Your task to perform on an android device: open a bookmark in the chrome app Image 0: 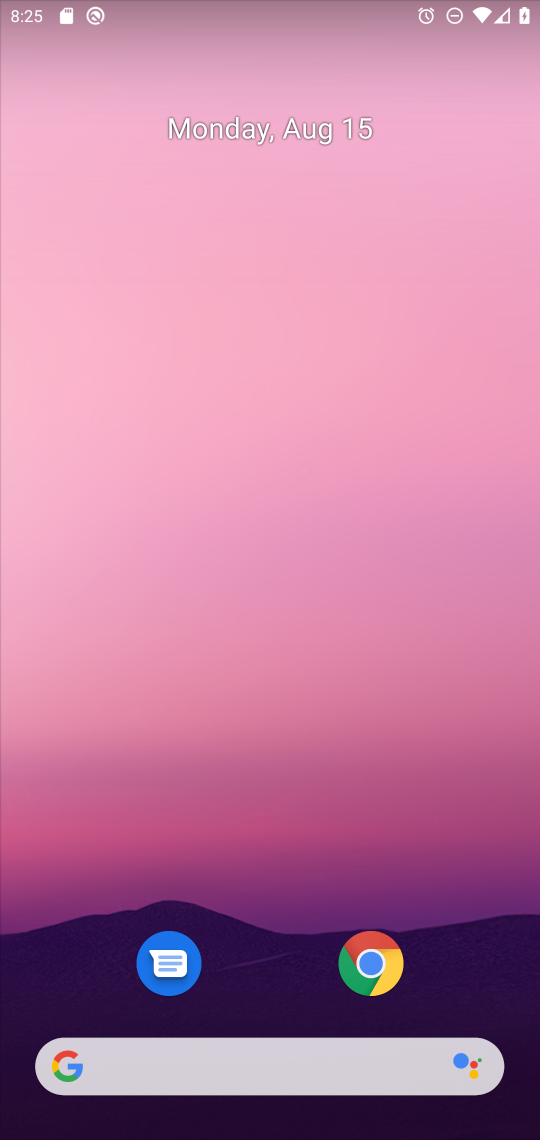
Step 0: click (381, 938)
Your task to perform on an android device: open a bookmark in the chrome app Image 1: 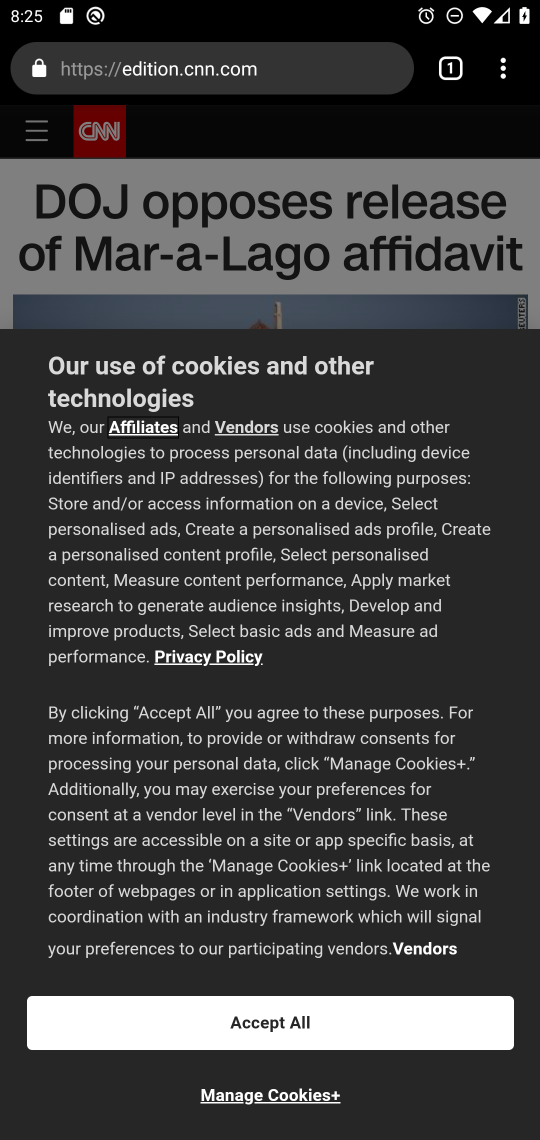
Step 1: click (524, 63)
Your task to perform on an android device: open a bookmark in the chrome app Image 2: 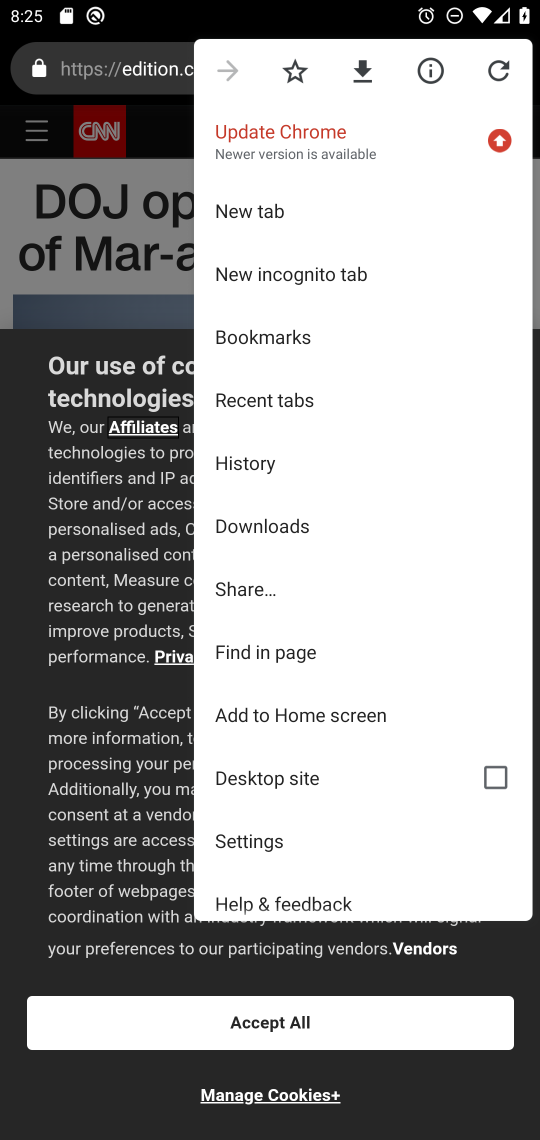
Step 2: click (293, 325)
Your task to perform on an android device: open a bookmark in the chrome app Image 3: 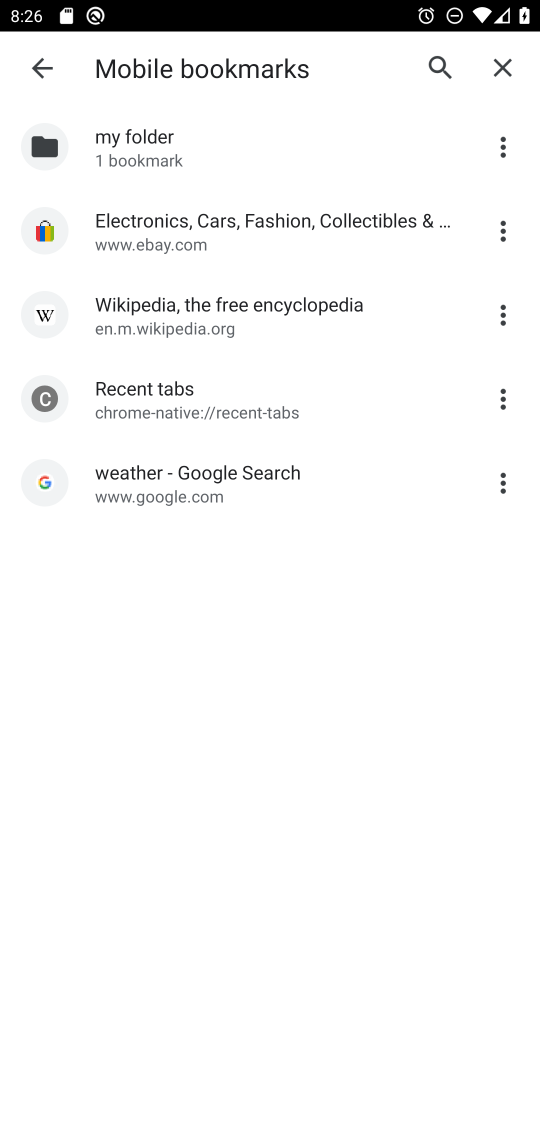
Step 3: click (261, 241)
Your task to perform on an android device: open a bookmark in the chrome app Image 4: 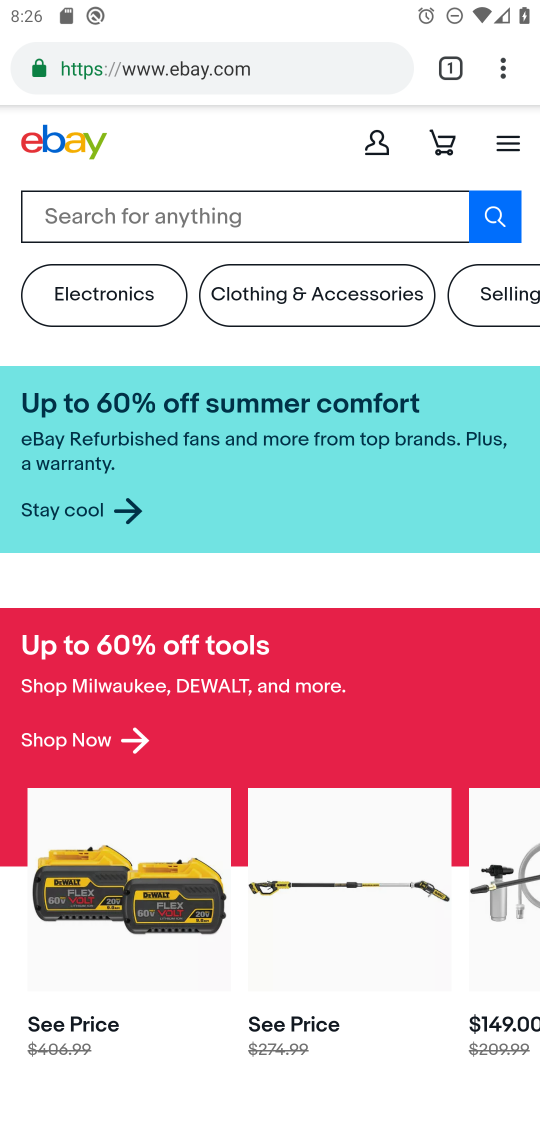
Step 4: task complete